Your task to perform on an android device: add a label to a message in the gmail app Image 0: 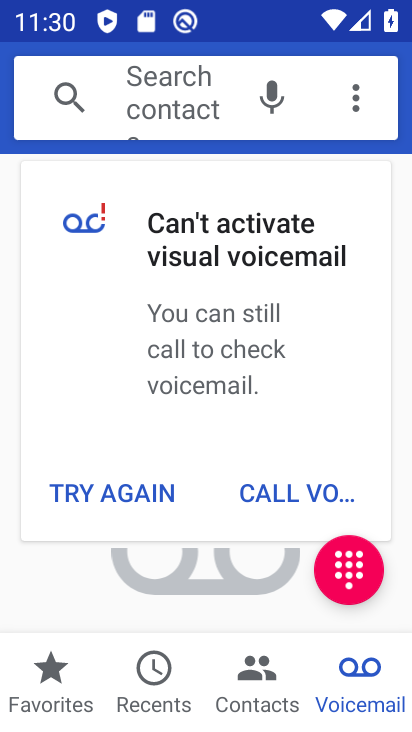
Step 0: press home button
Your task to perform on an android device: add a label to a message in the gmail app Image 1: 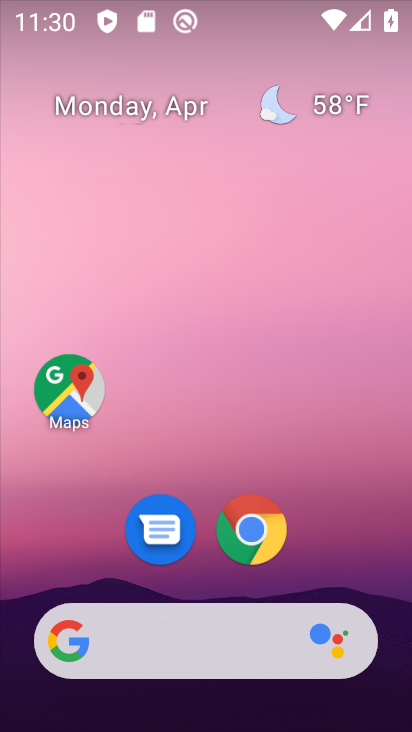
Step 1: drag from (377, 596) to (299, 105)
Your task to perform on an android device: add a label to a message in the gmail app Image 2: 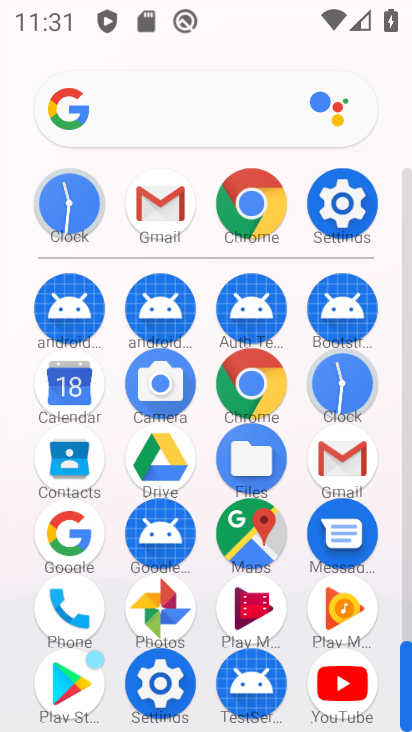
Step 2: click (322, 462)
Your task to perform on an android device: add a label to a message in the gmail app Image 3: 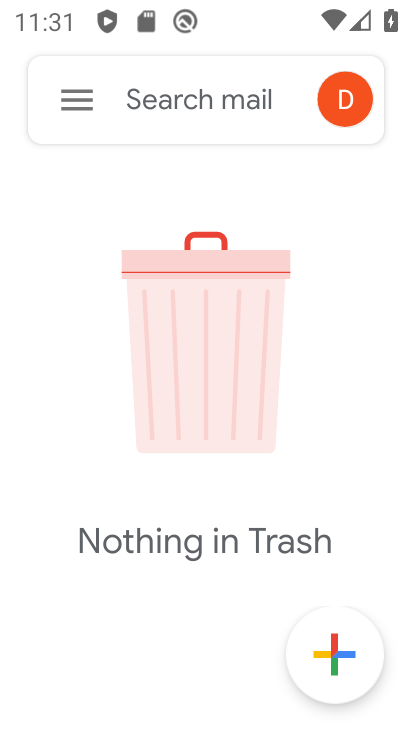
Step 3: click (74, 98)
Your task to perform on an android device: add a label to a message in the gmail app Image 4: 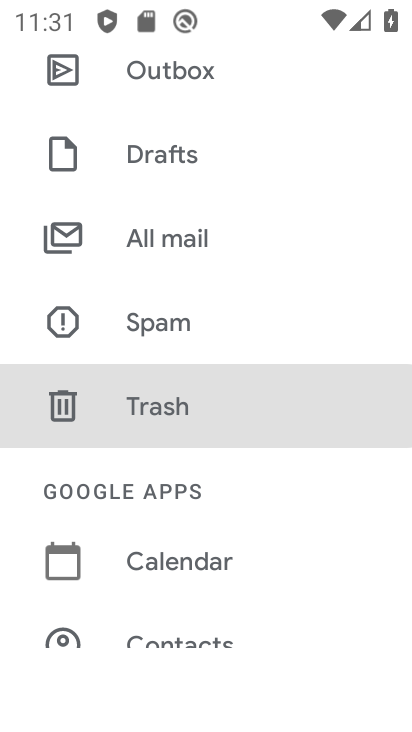
Step 4: drag from (156, 164) to (215, 606)
Your task to perform on an android device: add a label to a message in the gmail app Image 5: 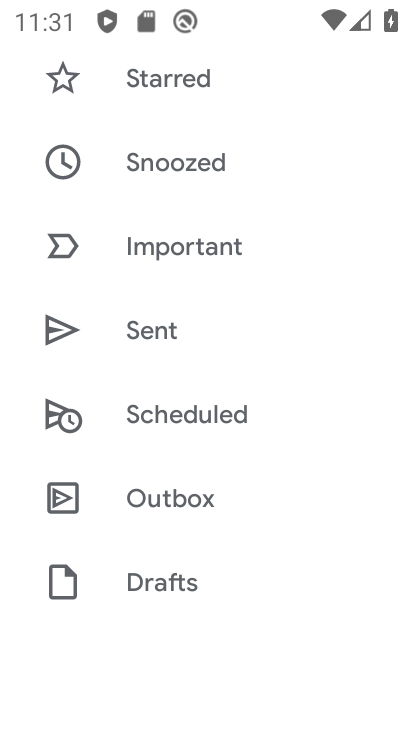
Step 5: drag from (216, 182) to (253, 581)
Your task to perform on an android device: add a label to a message in the gmail app Image 6: 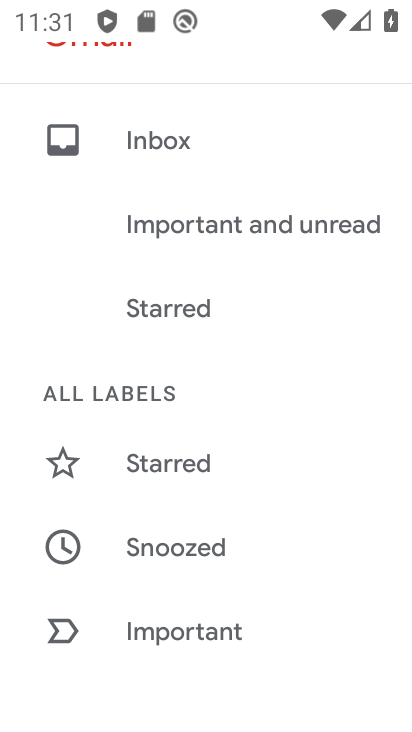
Step 6: click (222, 151)
Your task to perform on an android device: add a label to a message in the gmail app Image 7: 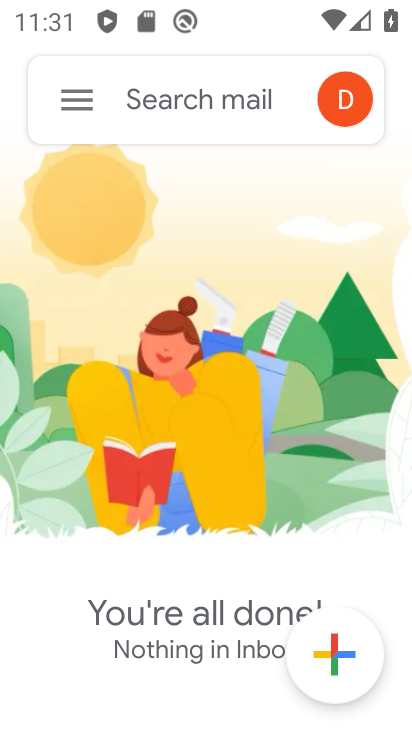
Step 7: task complete